Your task to perform on an android device: check out phone information Image 0: 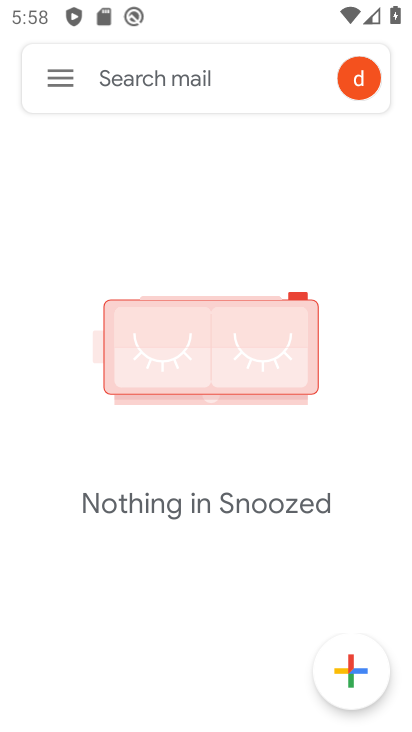
Step 0: press home button
Your task to perform on an android device: check out phone information Image 1: 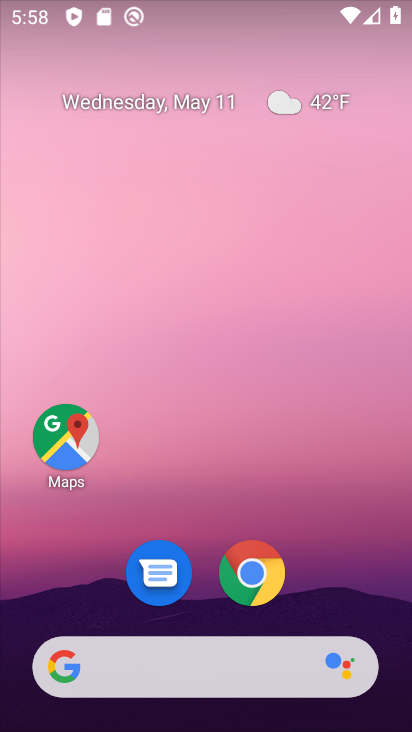
Step 1: drag from (336, 565) to (285, 105)
Your task to perform on an android device: check out phone information Image 2: 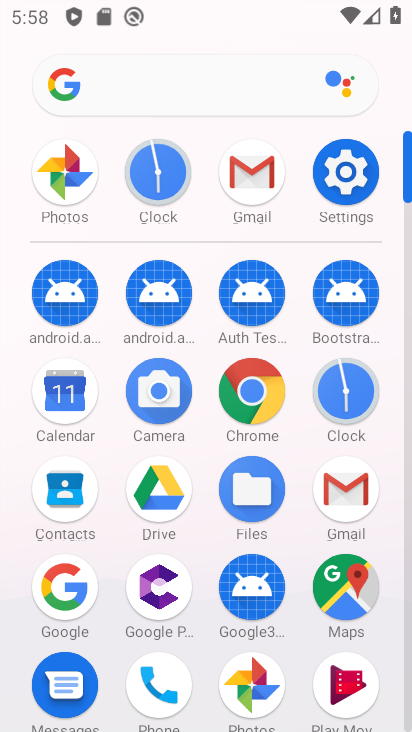
Step 2: click (345, 175)
Your task to perform on an android device: check out phone information Image 3: 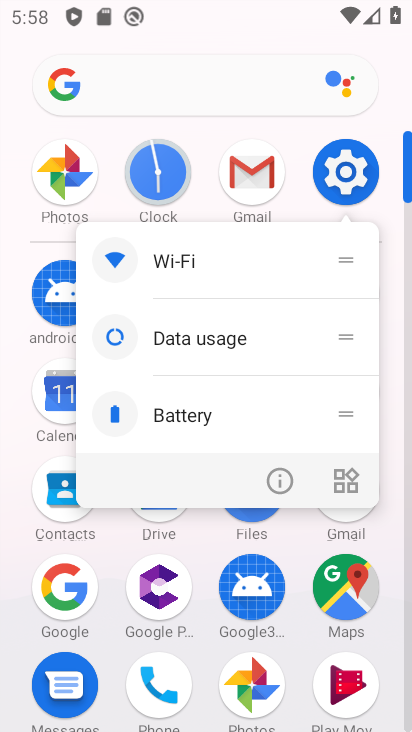
Step 3: click (345, 175)
Your task to perform on an android device: check out phone information Image 4: 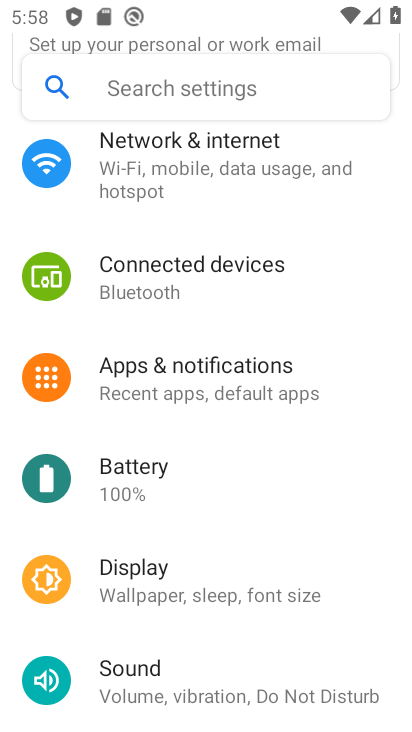
Step 4: drag from (243, 642) to (257, 192)
Your task to perform on an android device: check out phone information Image 5: 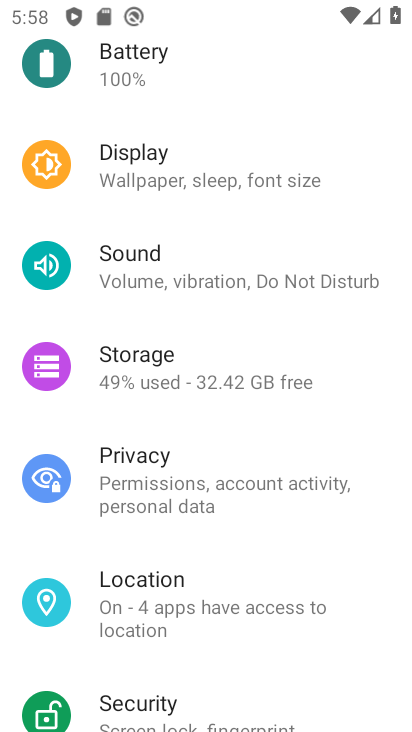
Step 5: drag from (285, 623) to (285, 157)
Your task to perform on an android device: check out phone information Image 6: 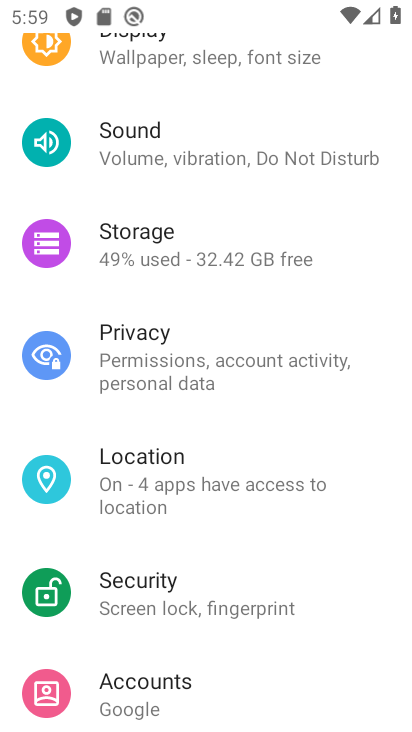
Step 6: drag from (221, 599) to (231, 33)
Your task to perform on an android device: check out phone information Image 7: 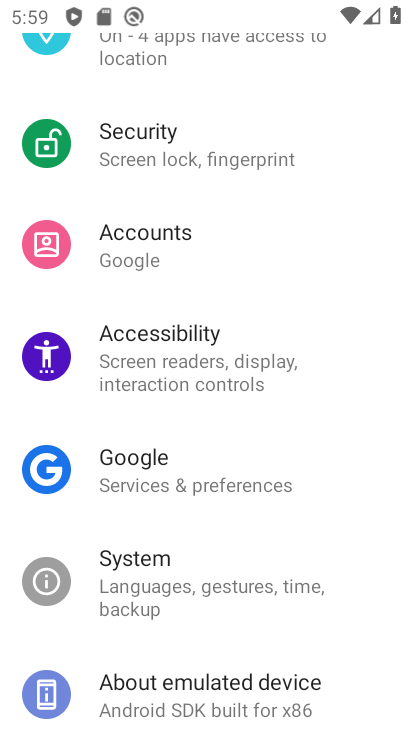
Step 7: drag from (160, 670) to (182, 323)
Your task to perform on an android device: check out phone information Image 8: 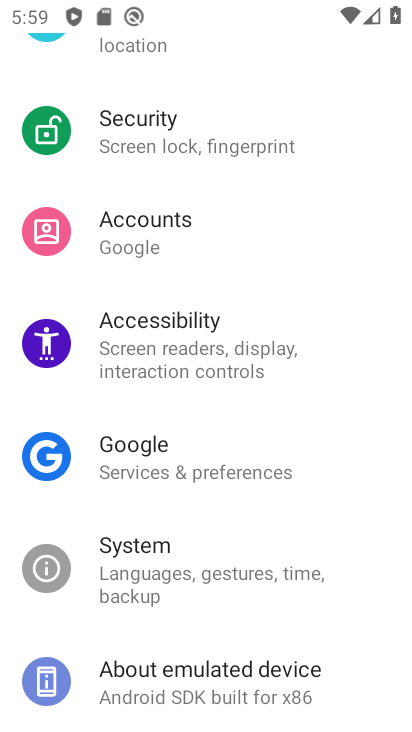
Step 8: click (202, 684)
Your task to perform on an android device: check out phone information Image 9: 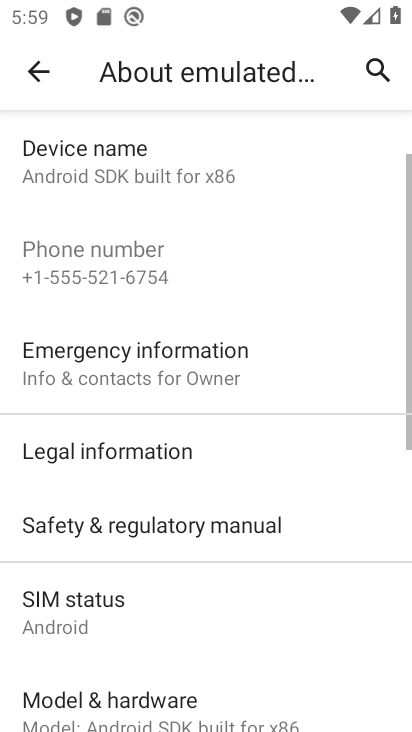
Step 9: task complete